Your task to perform on an android device: open app "WhatsApp Messenger" (install if not already installed) Image 0: 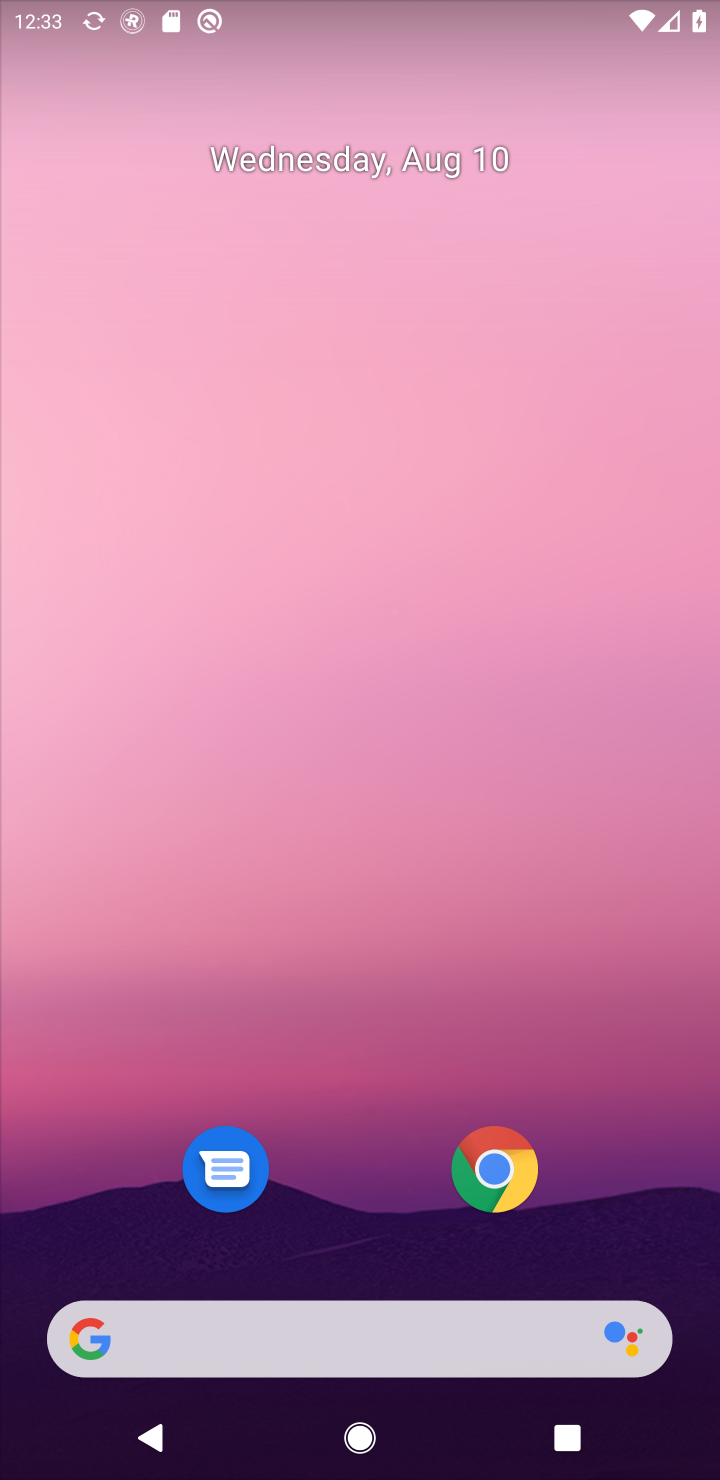
Step 0: press home button
Your task to perform on an android device: open app "WhatsApp Messenger" (install if not already installed) Image 1: 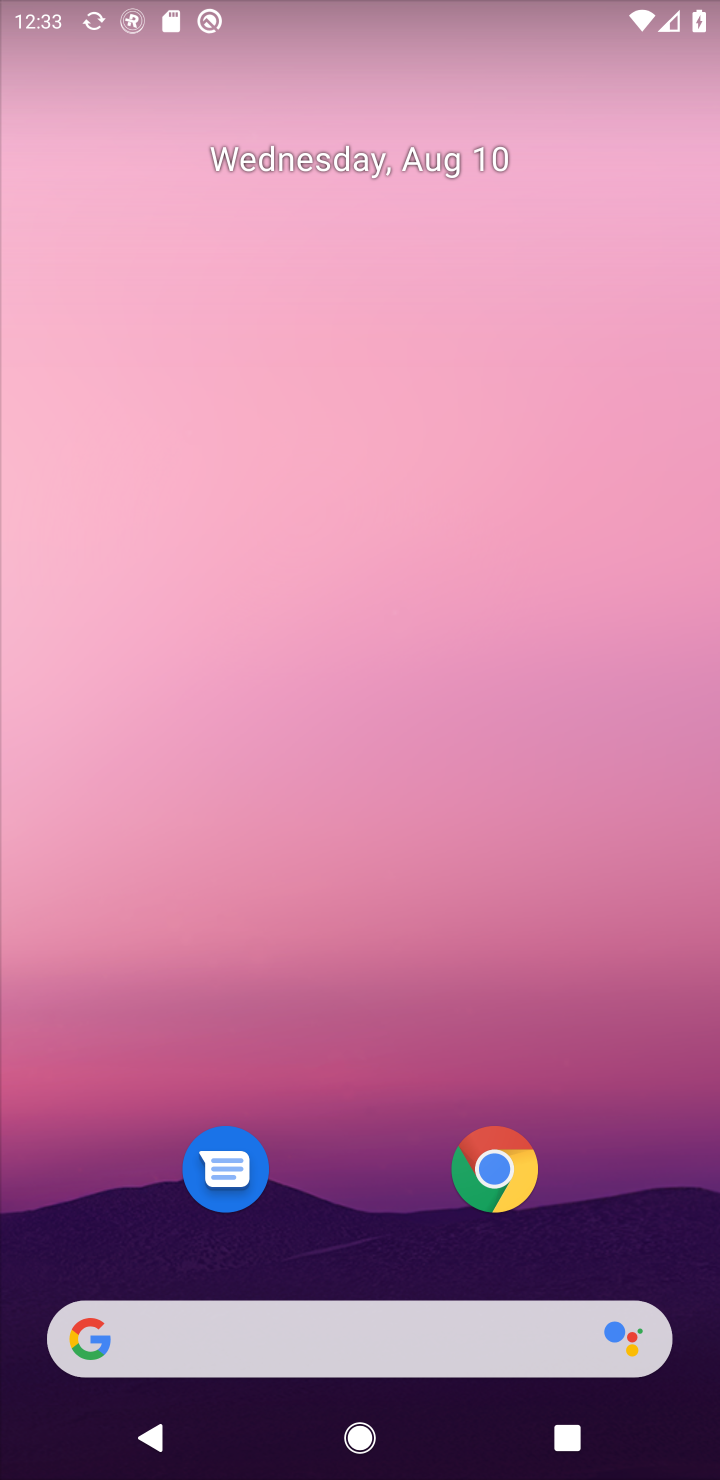
Step 1: drag from (599, 1025) to (576, 191)
Your task to perform on an android device: open app "WhatsApp Messenger" (install if not already installed) Image 2: 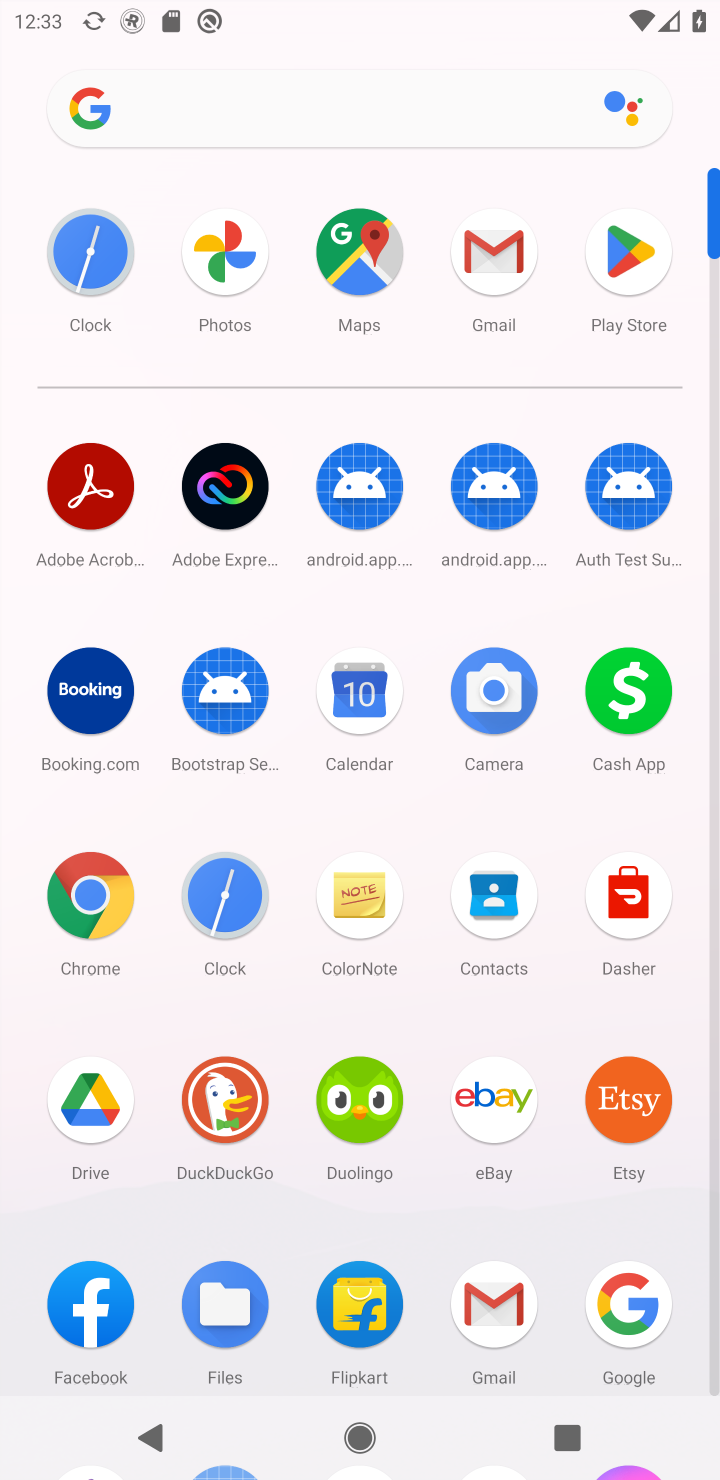
Step 2: click (629, 250)
Your task to perform on an android device: open app "WhatsApp Messenger" (install if not already installed) Image 3: 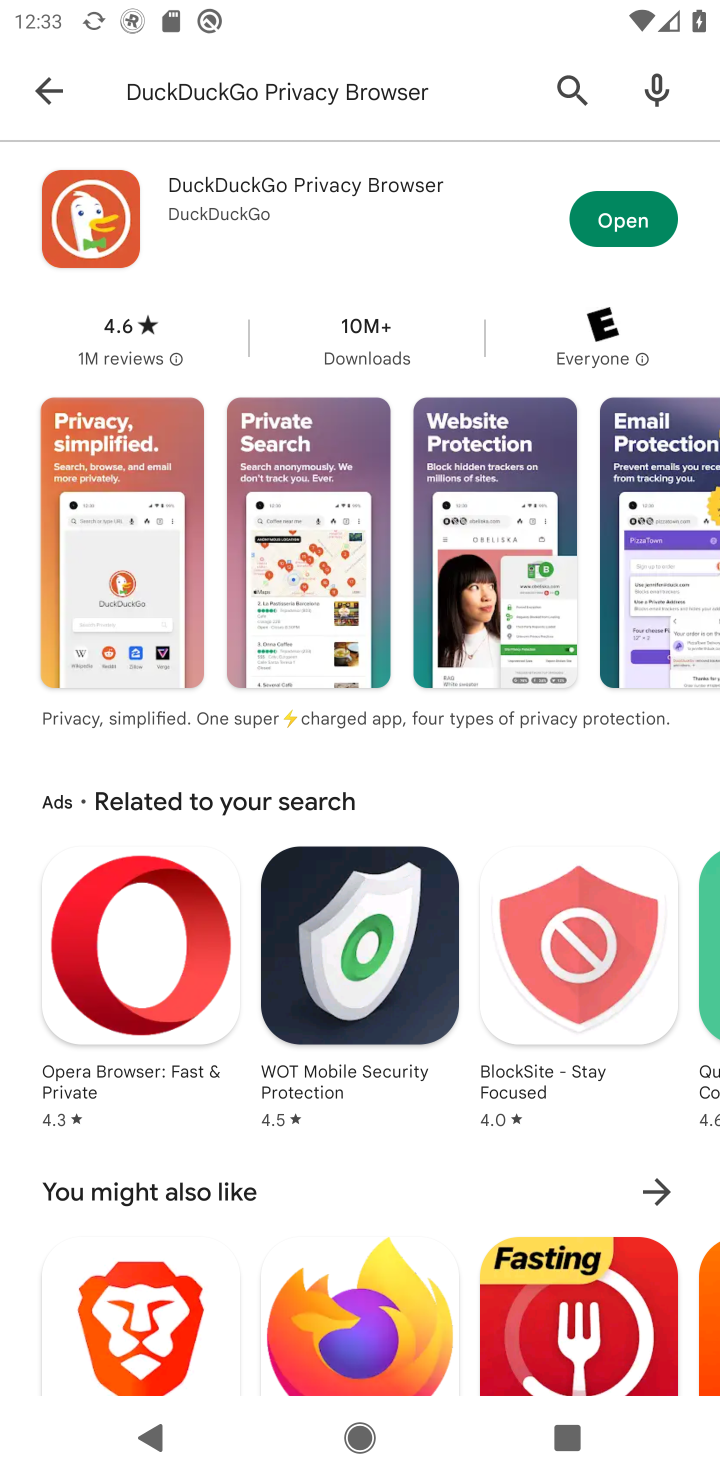
Step 3: click (561, 88)
Your task to perform on an android device: open app "WhatsApp Messenger" (install if not already installed) Image 4: 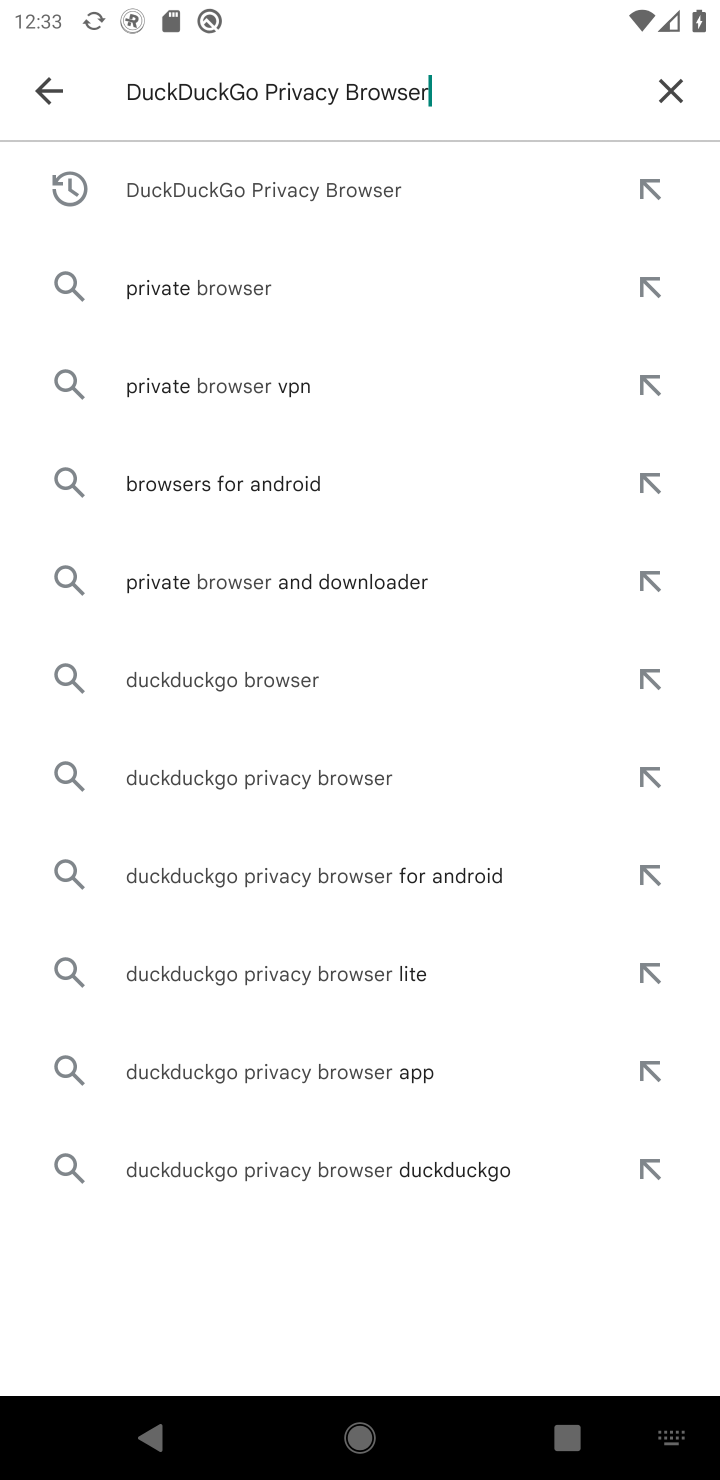
Step 4: click (672, 93)
Your task to perform on an android device: open app "WhatsApp Messenger" (install if not already installed) Image 5: 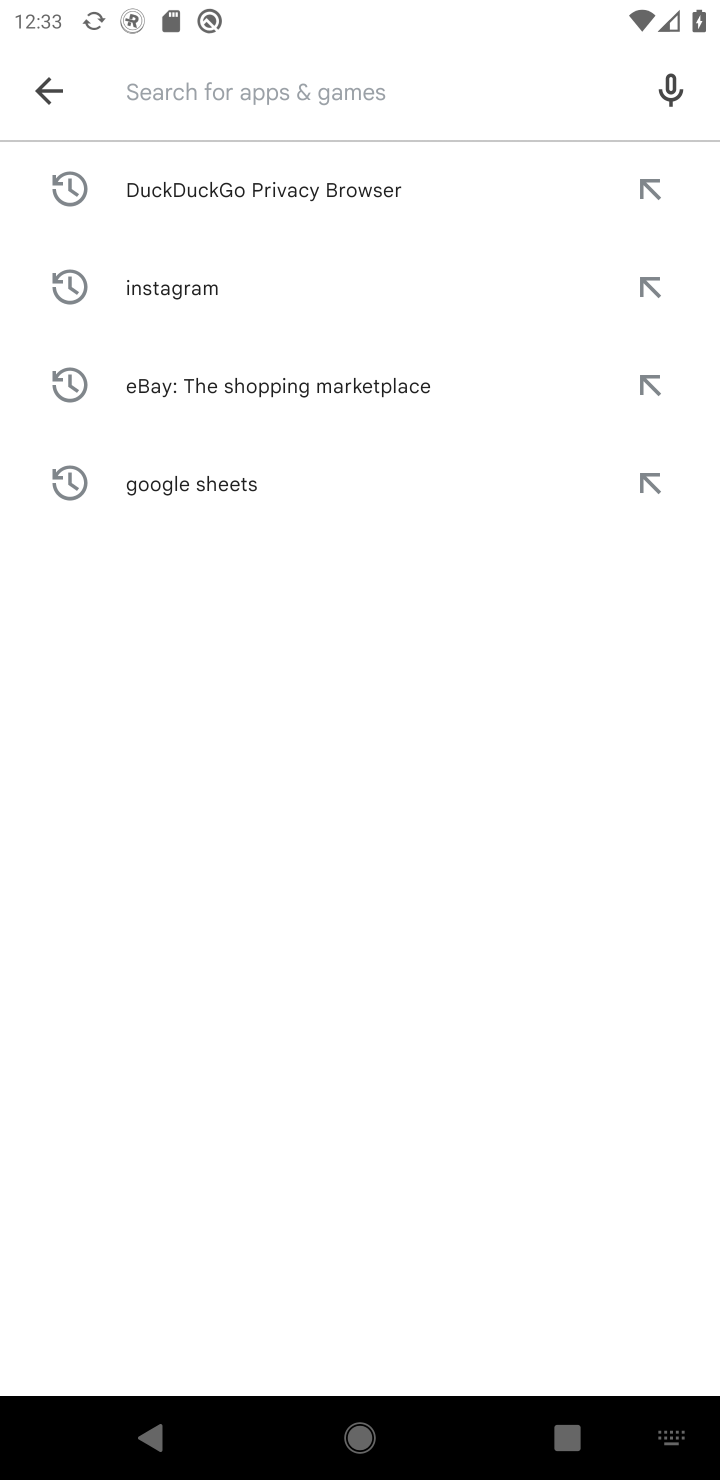
Step 5: type "WhatsApp Messenger"
Your task to perform on an android device: open app "WhatsApp Messenger" (install if not already installed) Image 6: 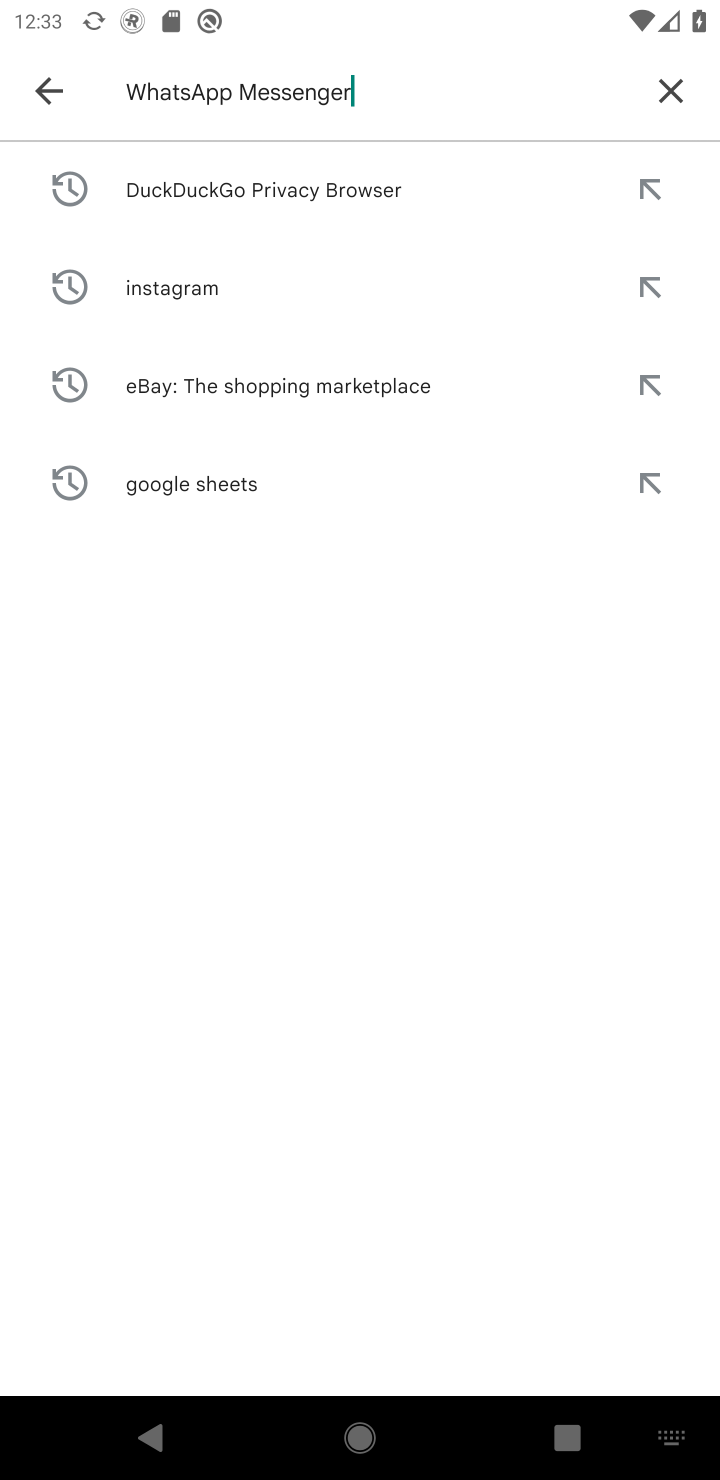
Step 6: press enter
Your task to perform on an android device: open app "WhatsApp Messenger" (install if not already installed) Image 7: 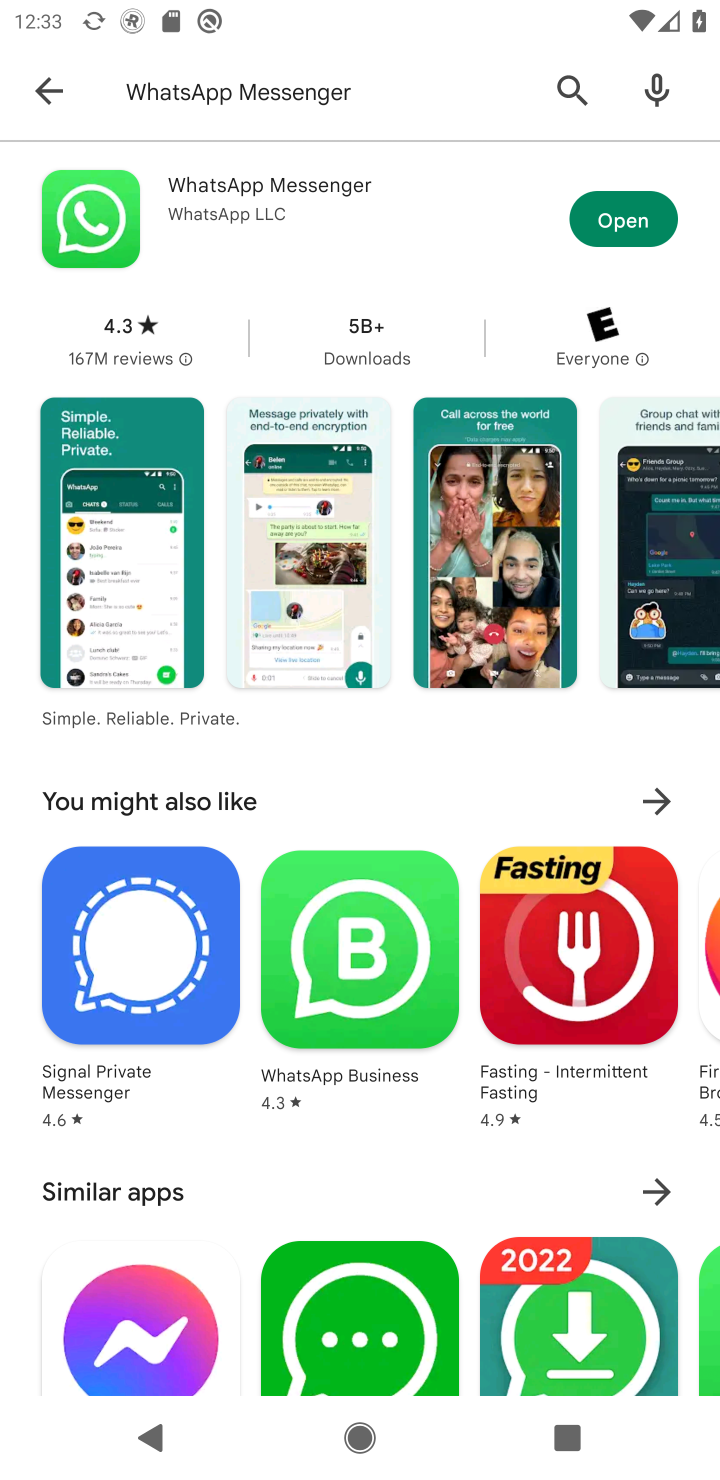
Step 7: click (657, 211)
Your task to perform on an android device: open app "WhatsApp Messenger" (install if not already installed) Image 8: 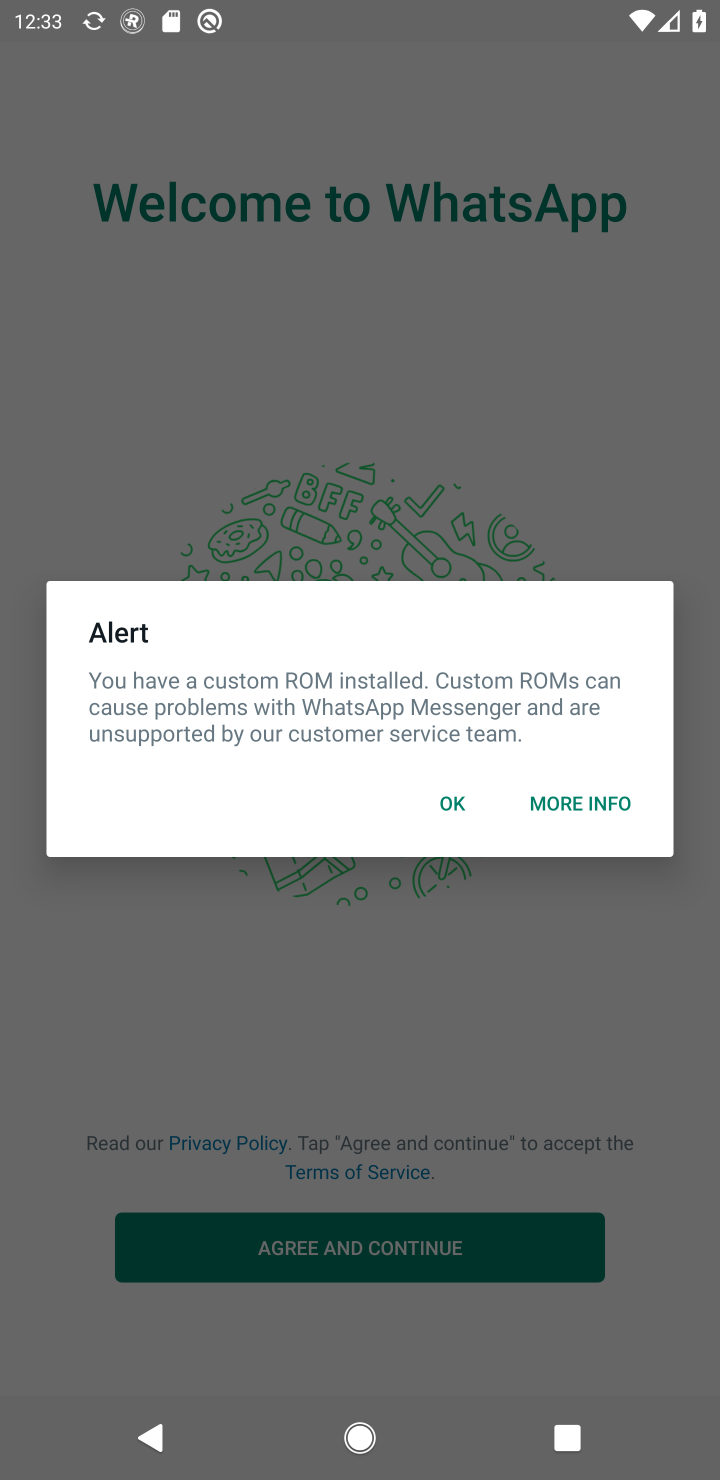
Step 8: click (446, 801)
Your task to perform on an android device: open app "WhatsApp Messenger" (install if not already installed) Image 9: 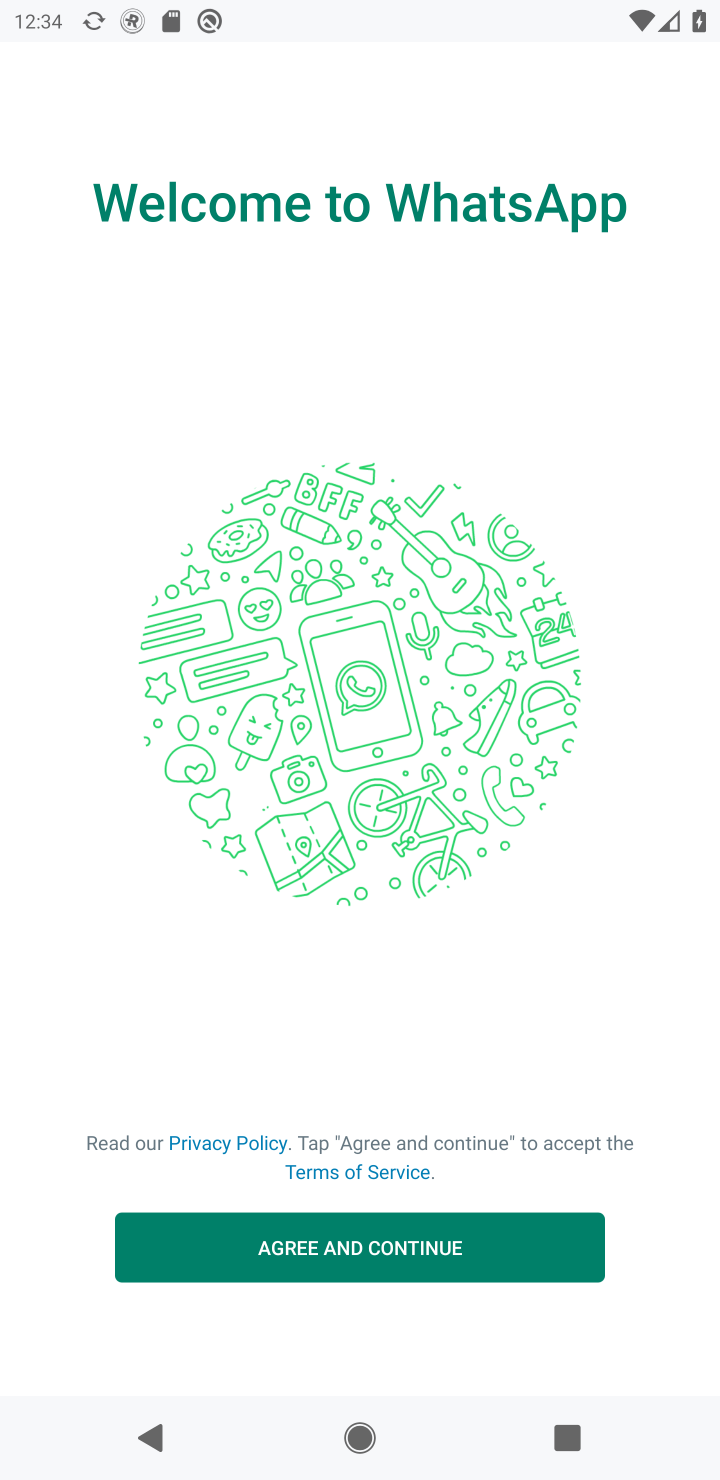
Step 9: task complete